Your task to perform on an android device: Open settings Image 0: 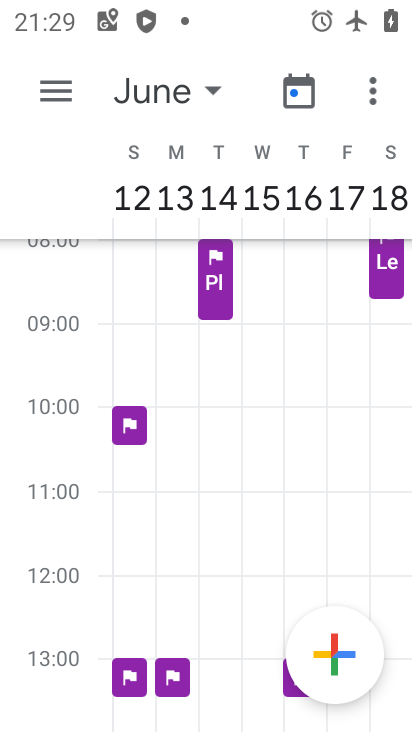
Step 0: press home button
Your task to perform on an android device: Open settings Image 1: 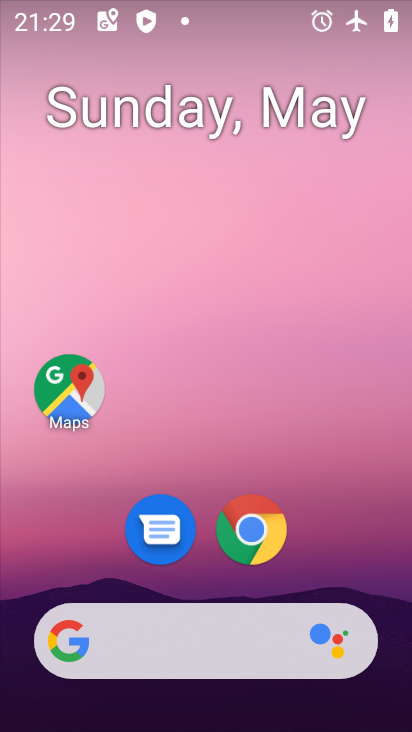
Step 1: drag from (347, 599) to (318, 11)
Your task to perform on an android device: Open settings Image 2: 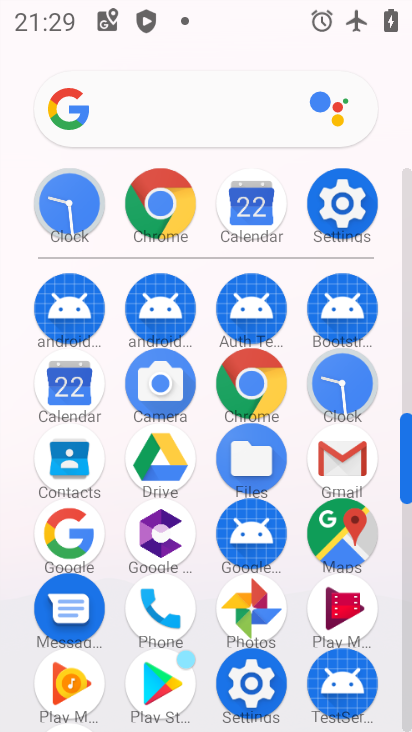
Step 2: click (341, 200)
Your task to perform on an android device: Open settings Image 3: 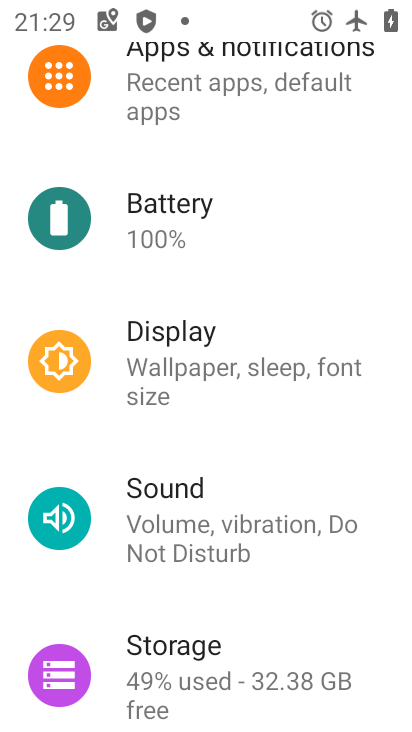
Step 3: task complete